Your task to perform on an android device: stop showing notifications on the lock screen Image 0: 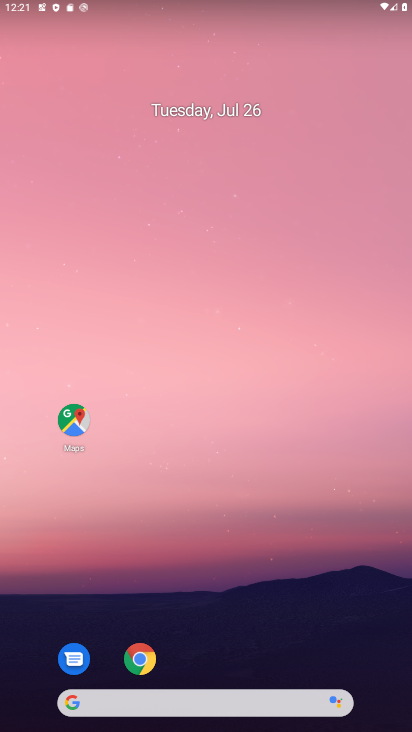
Step 0: drag from (169, 620) to (182, 202)
Your task to perform on an android device: stop showing notifications on the lock screen Image 1: 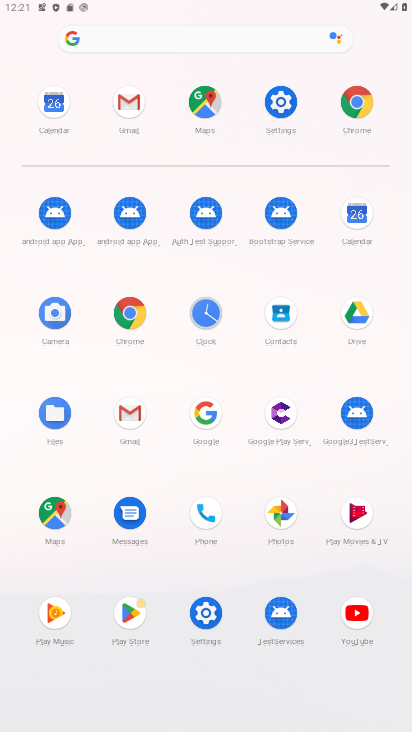
Step 1: click (209, 610)
Your task to perform on an android device: stop showing notifications on the lock screen Image 2: 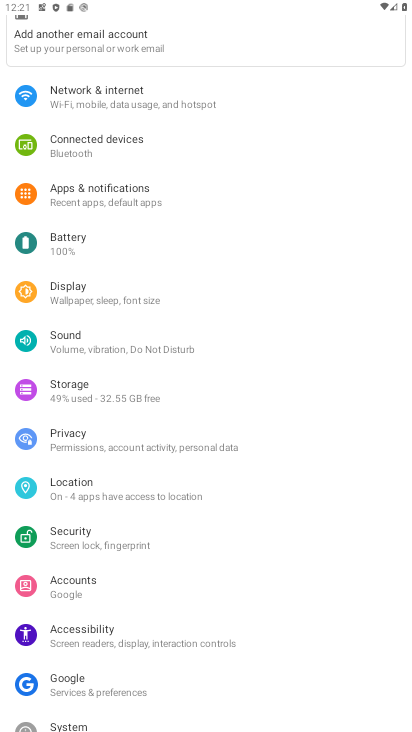
Step 2: click (103, 190)
Your task to perform on an android device: stop showing notifications on the lock screen Image 3: 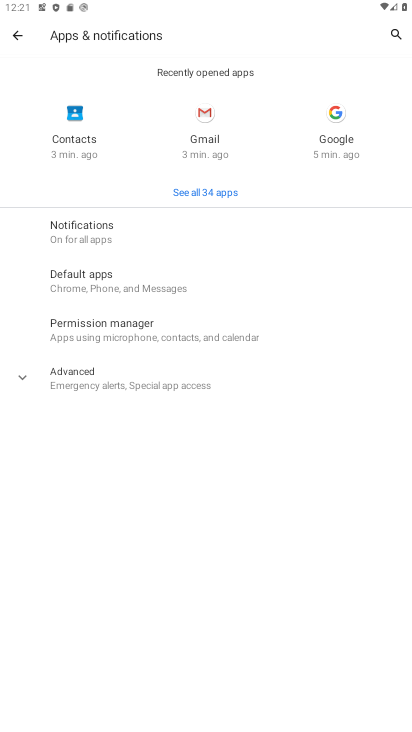
Step 3: click (119, 232)
Your task to perform on an android device: stop showing notifications on the lock screen Image 4: 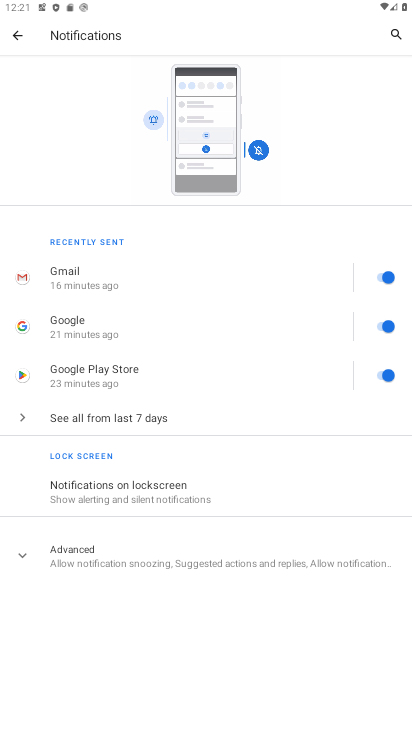
Step 4: click (134, 484)
Your task to perform on an android device: stop showing notifications on the lock screen Image 5: 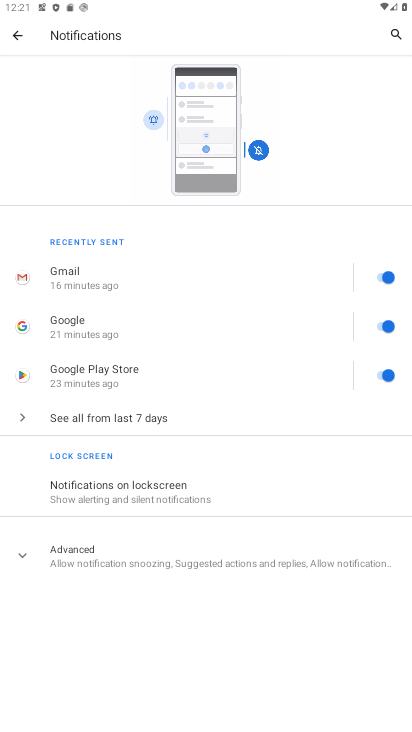
Step 5: click (133, 484)
Your task to perform on an android device: stop showing notifications on the lock screen Image 6: 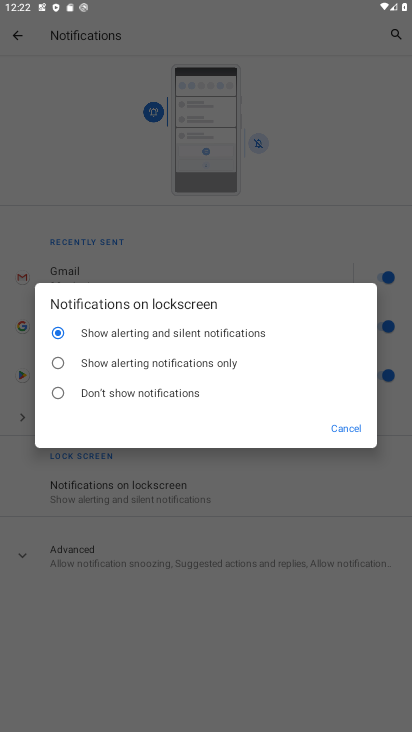
Step 6: click (54, 394)
Your task to perform on an android device: stop showing notifications on the lock screen Image 7: 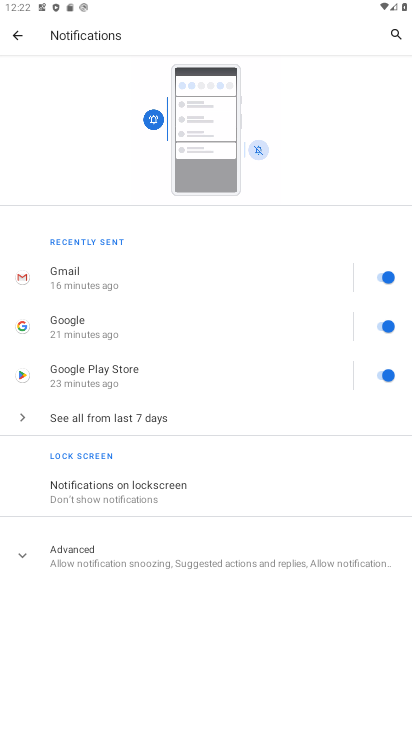
Step 7: task complete